Your task to perform on an android device: open app "Roku - Official Remote Control" (install if not already installed), go to login, and select forgot password Image 0: 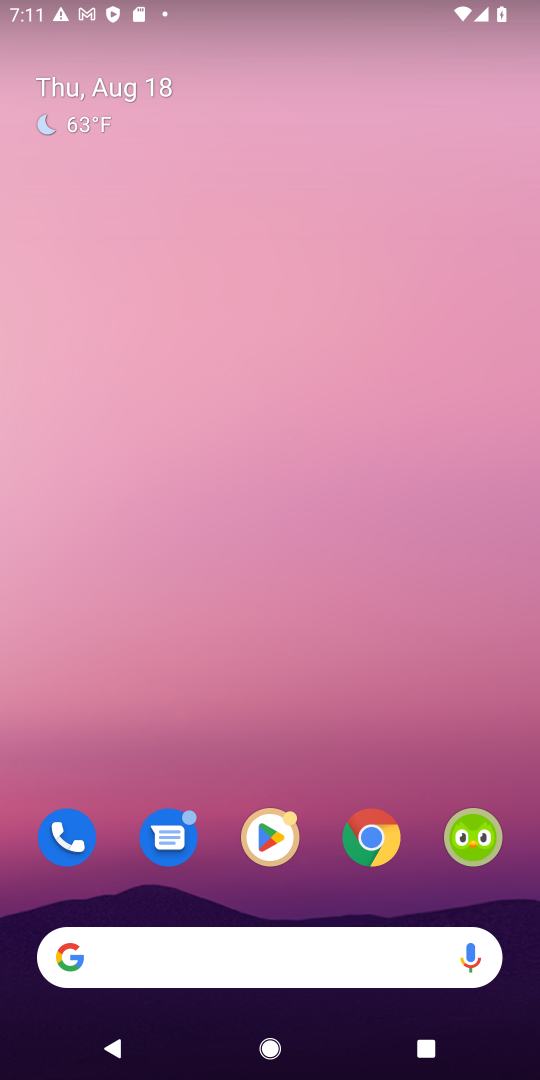
Step 0: drag from (236, 901) to (316, 96)
Your task to perform on an android device: open app "Roku - Official Remote Control" (install if not already installed), go to login, and select forgot password Image 1: 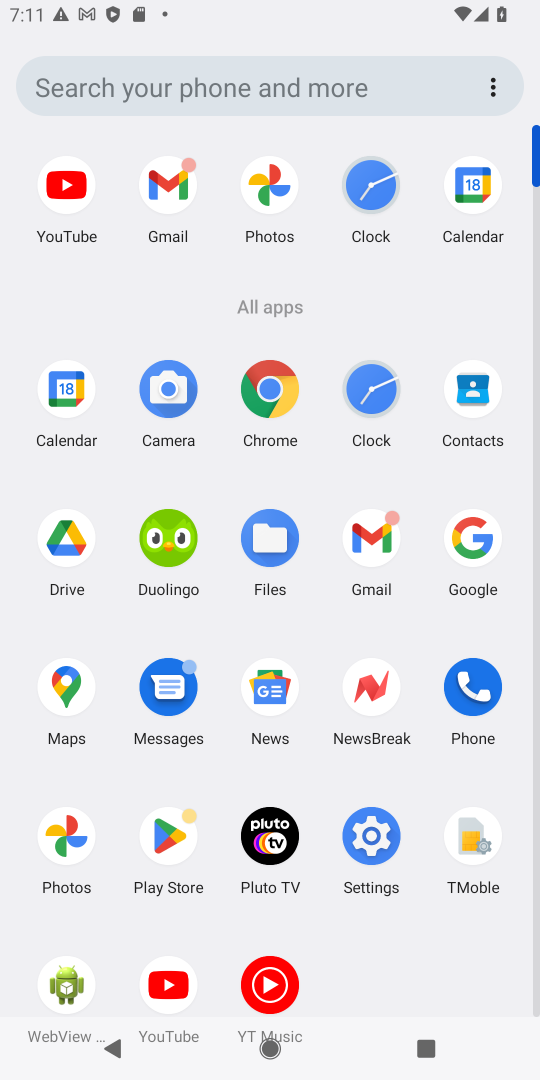
Step 1: click (162, 873)
Your task to perform on an android device: open app "Roku - Official Remote Control" (install if not already installed), go to login, and select forgot password Image 2: 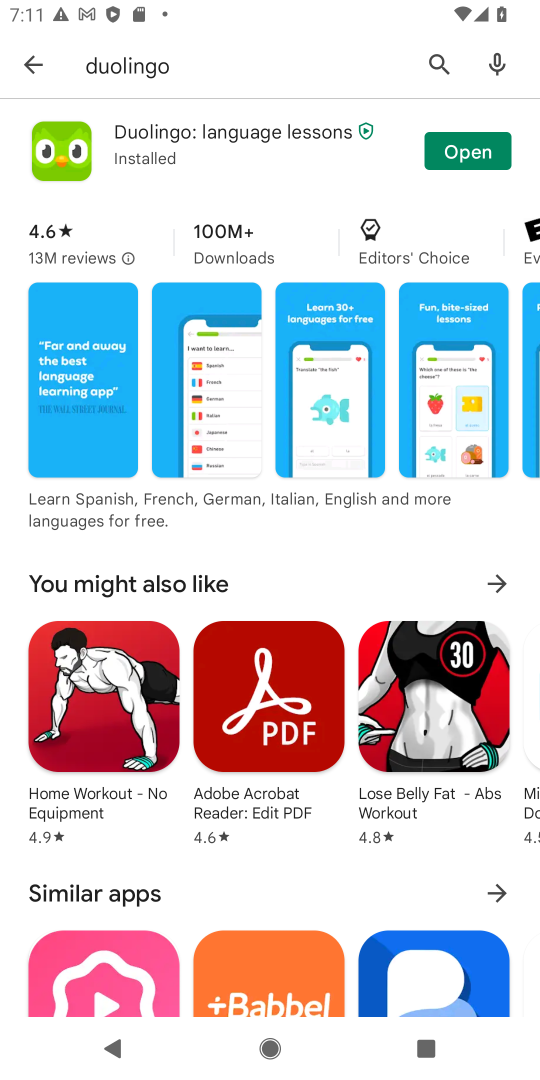
Step 2: click (175, 68)
Your task to perform on an android device: open app "Roku - Official Remote Control" (install if not already installed), go to login, and select forgot password Image 3: 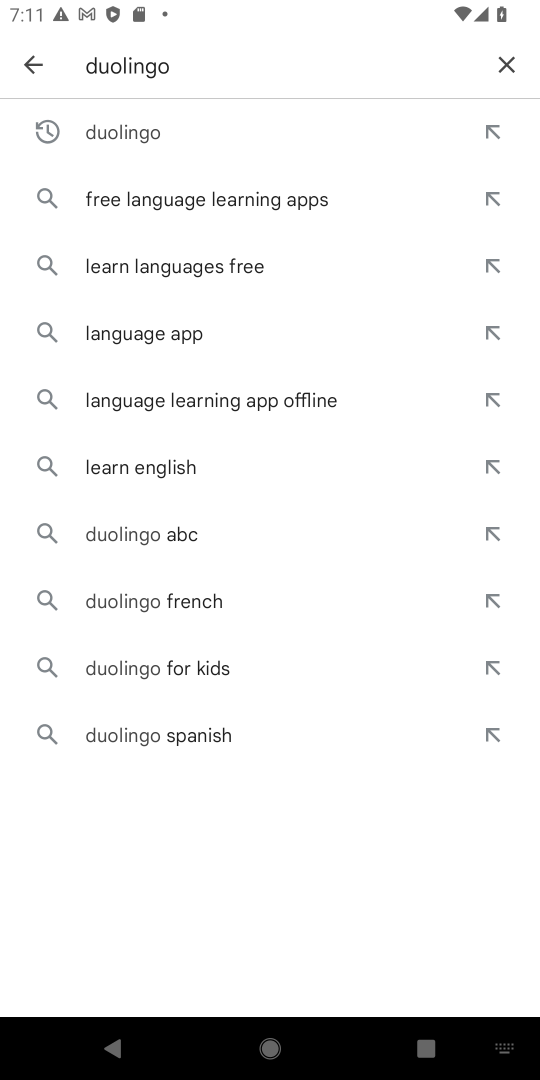
Step 3: click (513, 58)
Your task to perform on an android device: open app "Roku - Official Remote Control" (install if not already installed), go to login, and select forgot password Image 4: 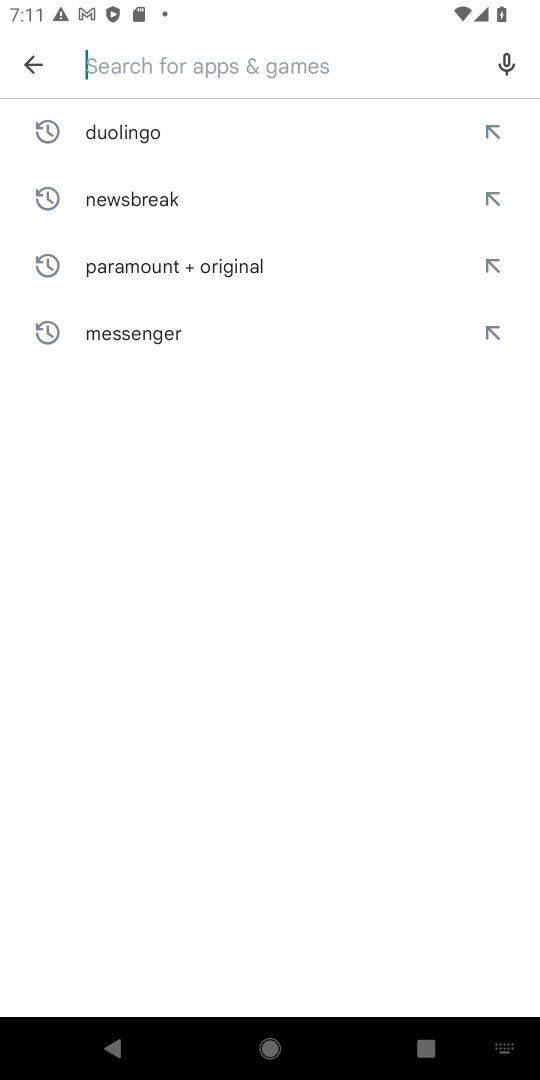
Step 4: type "Roku"
Your task to perform on an android device: open app "Roku - Official Remote Control" (install if not already installed), go to login, and select forgot password Image 5: 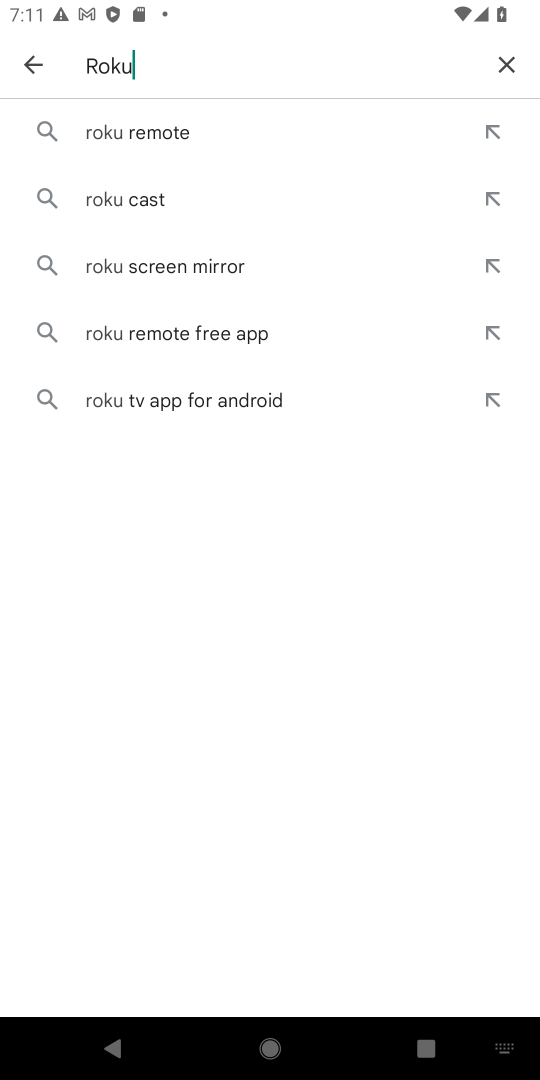
Step 5: click (196, 128)
Your task to perform on an android device: open app "Roku - Official Remote Control" (install if not already installed), go to login, and select forgot password Image 6: 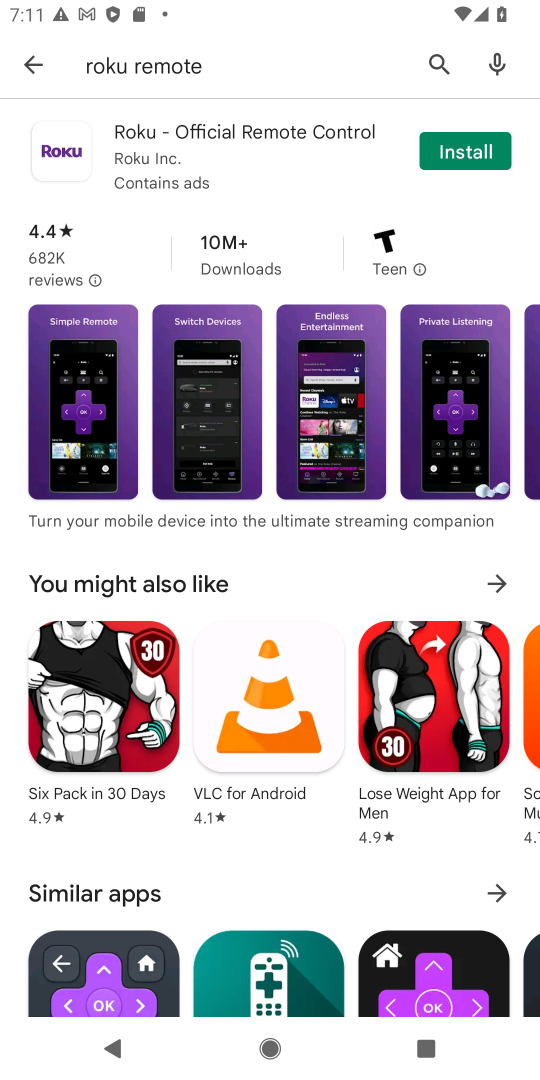
Step 6: click (483, 152)
Your task to perform on an android device: open app "Roku - Official Remote Control" (install if not already installed), go to login, and select forgot password Image 7: 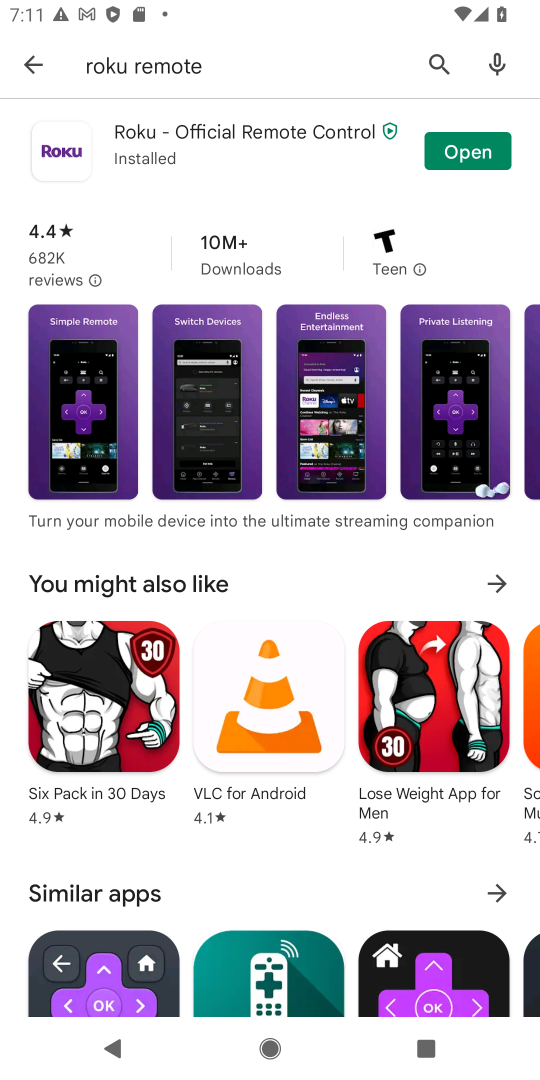
Step 7: click (464, 143)
Your task to perform on an android device: open app "Roku - Official Remote Control" (install if not already installed), go to login, and select forgot password Image 8: 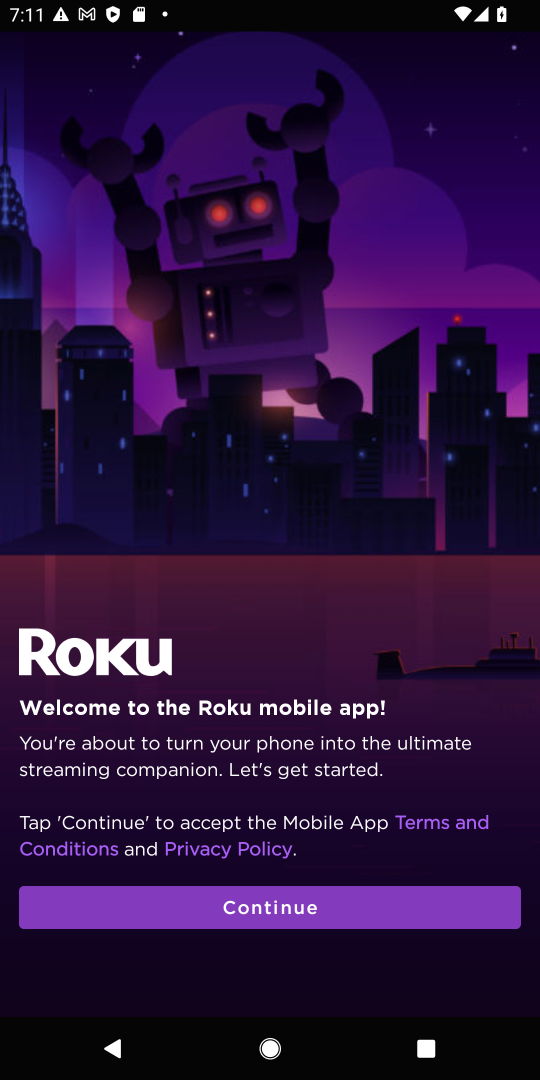
Step 8: click (370, 893)
Your task to perform on an android device: open app "Roku - Official Remote Control" (install if not already installed), go to login, and select forgot password Image 9: 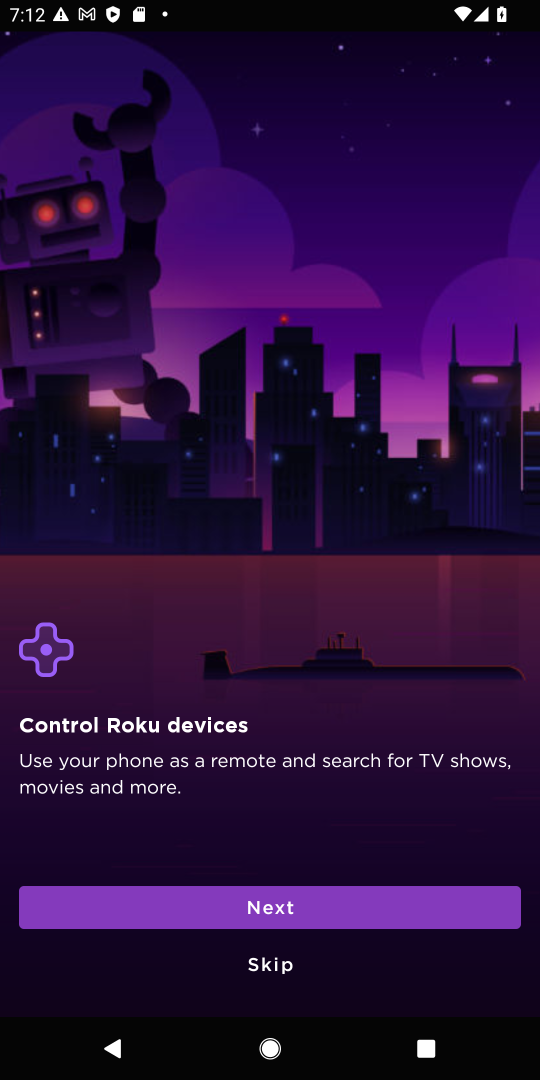
Step 9: click (325, 914)
Your task to perform on an android device: open app "Roku - Official Remote Control" (install if not already installed), go to login, and select forgot password Image 10: 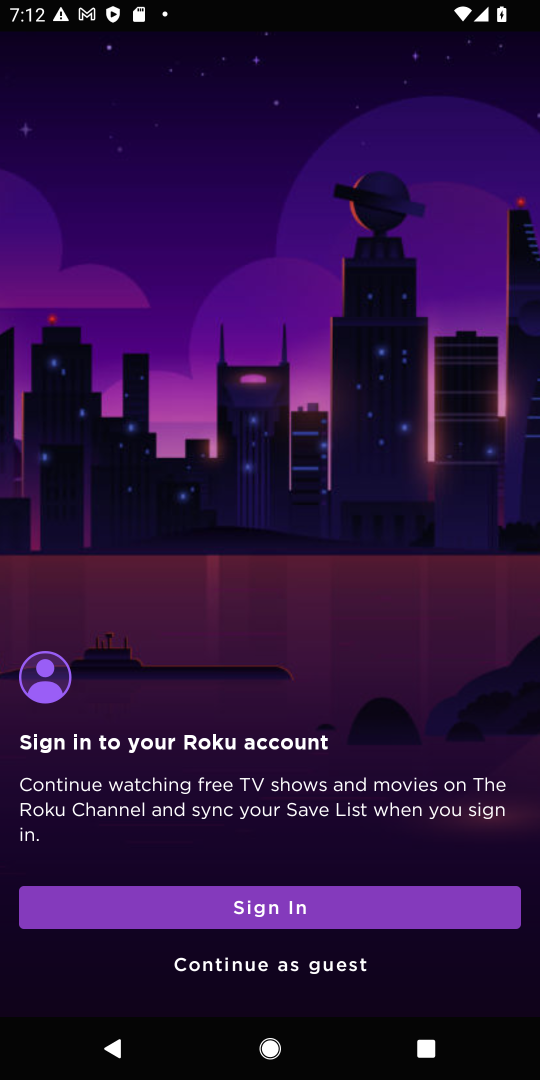
Step 10: click (328, 907)
Your task to perform on an android device: open app "Roku - Official Remote Control" (install if not already installed), go to login, and select forgot password Image 11: 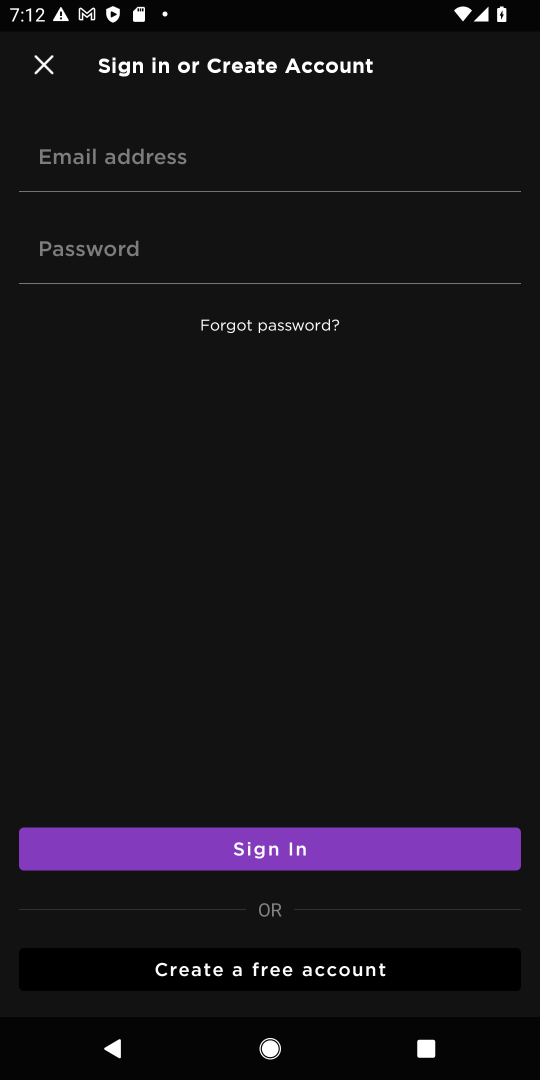
Step 11: click (311, 312)
Your task to perform on an android device: open app "Roku - Official Remote Control" (install if not already installed), go to login, and select forgot password Image 12: 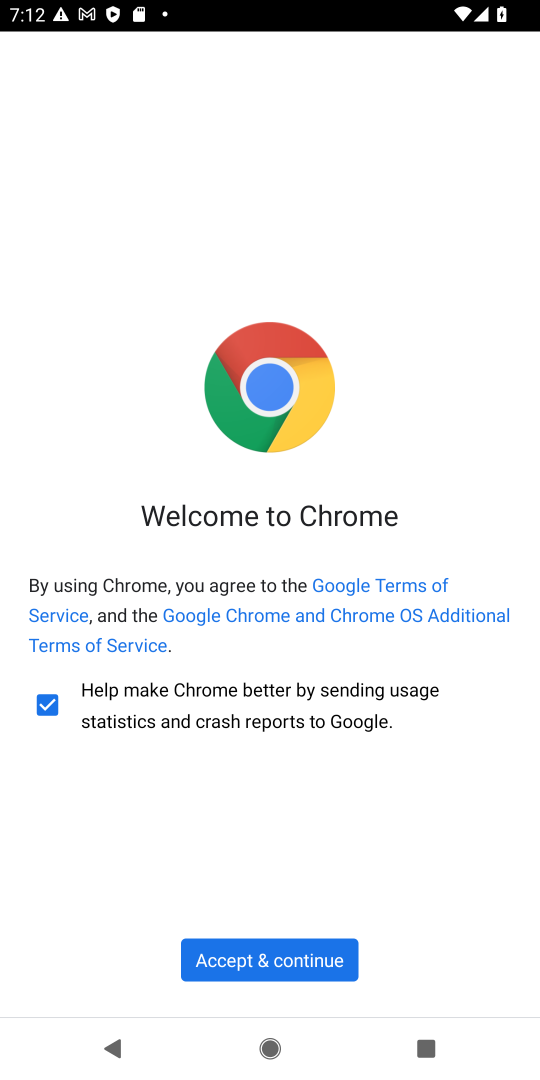
Step 12: task complete